Your task to perform on an android device: change the upload size in google photos Image 0: 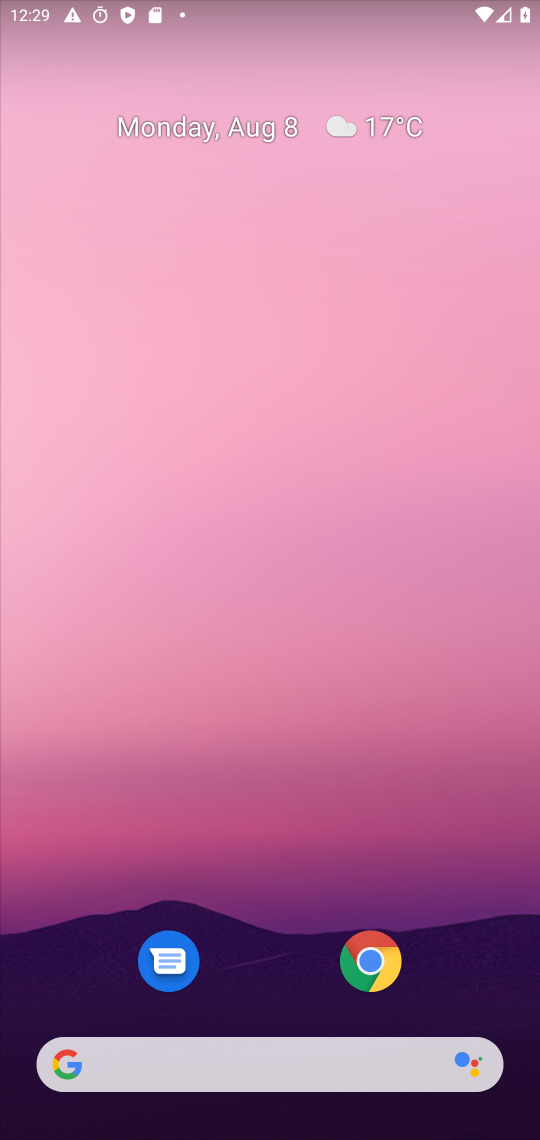
Step 0: drag from (228, 1062) to (160, 13)
Your task to perform on an android device: change the upload size in google photos Image 1: 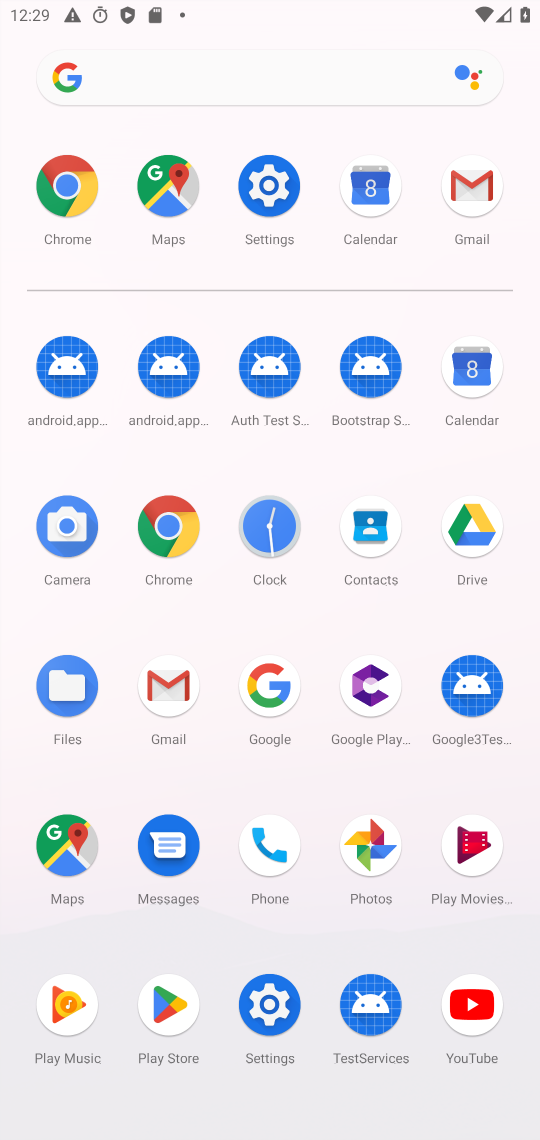
Step 1: click (359, 849)
Your task to perform on an android device: change the upload size in google photos Image 2: 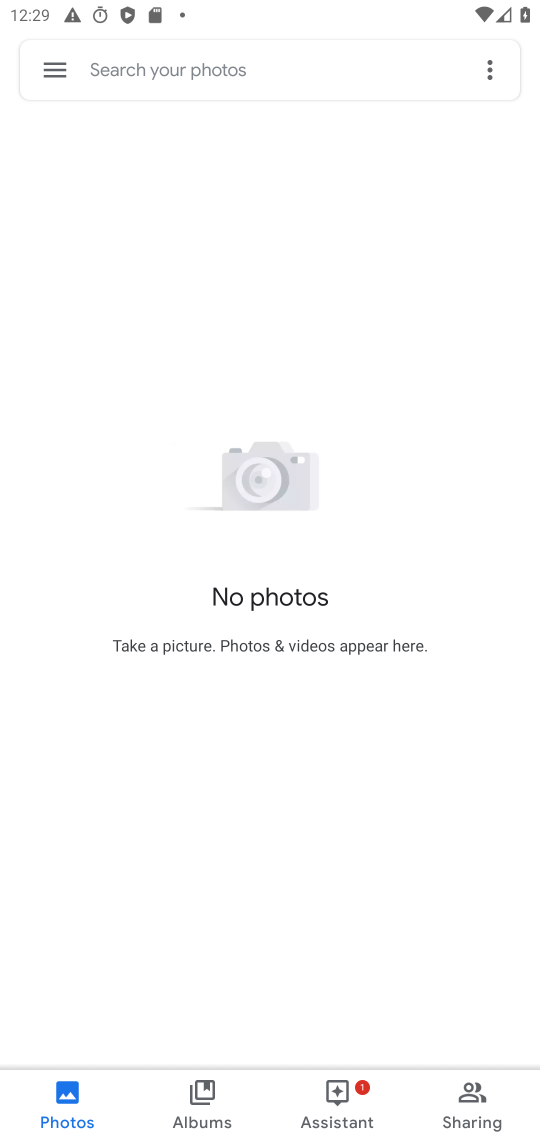
Step 2: click (55, 68)
Your task to perform on an android device: change the upload size in google photos Image 3: 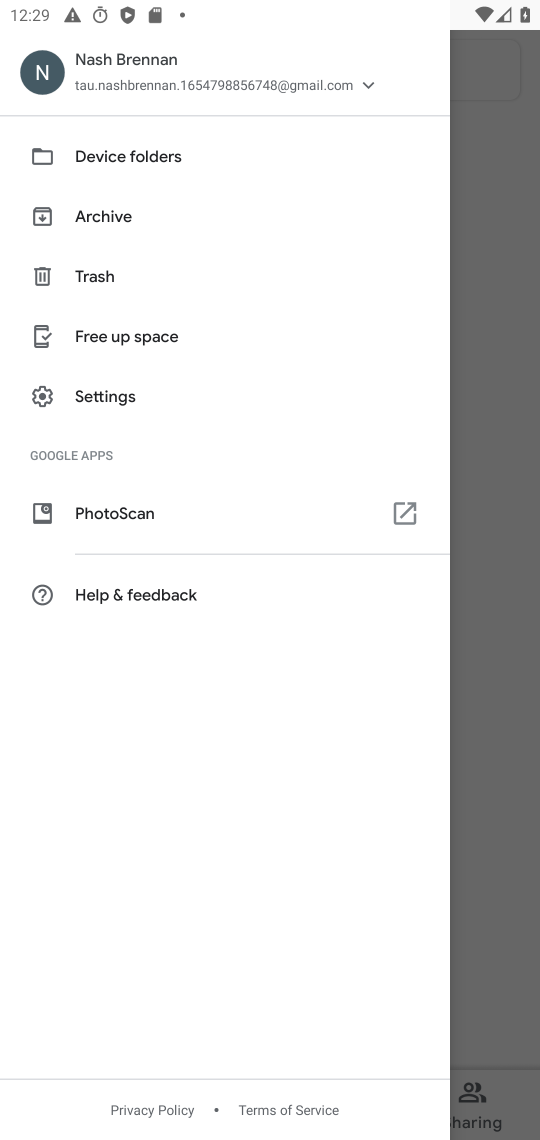
Step 3: click (124, 397)
Your task to perform on an android device: change the upload size in google photos Image 4: 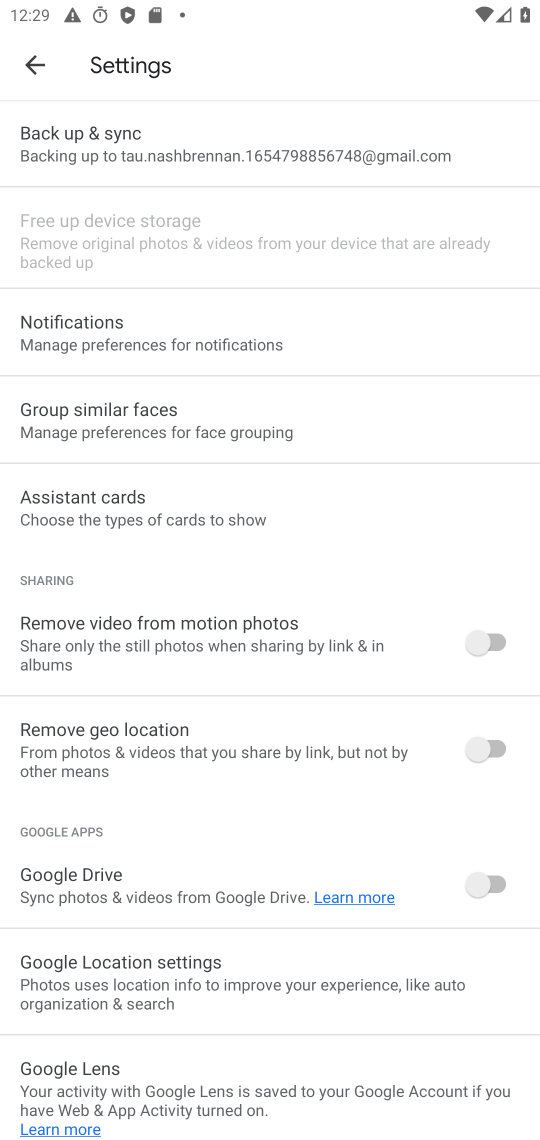
Step 4: click (159, 147)
Your task to perform on an android device: change the upload size in google photos Image 5: 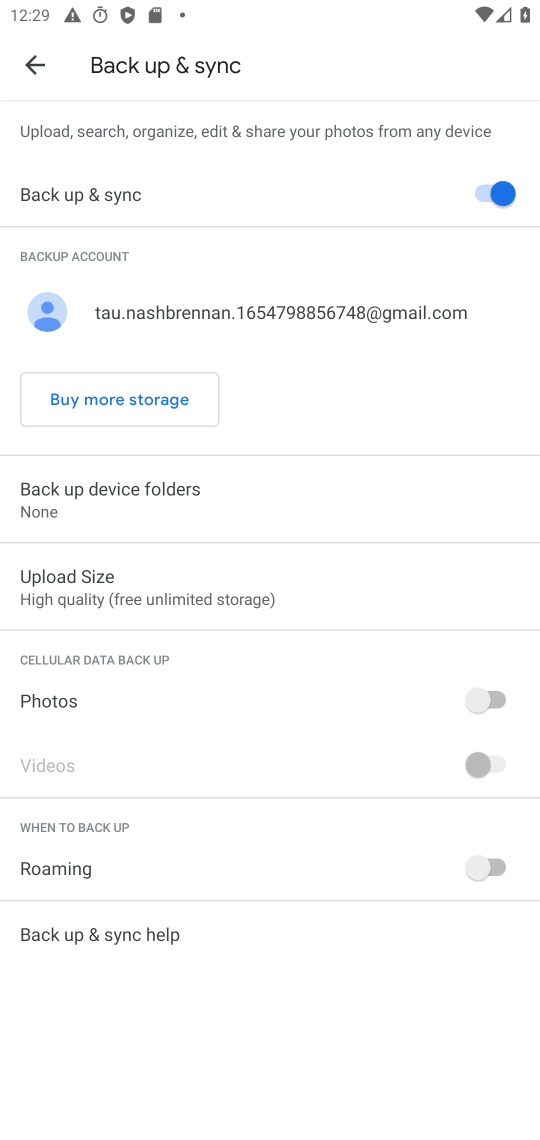
Step 5: click (90, 598)
Your task to perform on an android device: change the upload size in google photos Image 6: 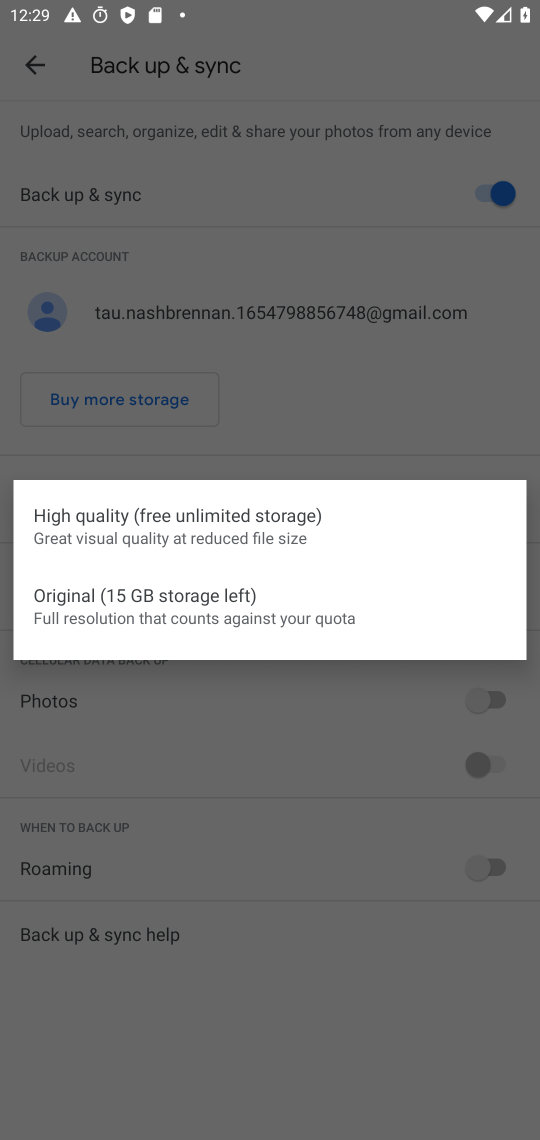
Step 6: click (121, 599)
Your task to perform on an android device: change the upload size in google photos Image 7: 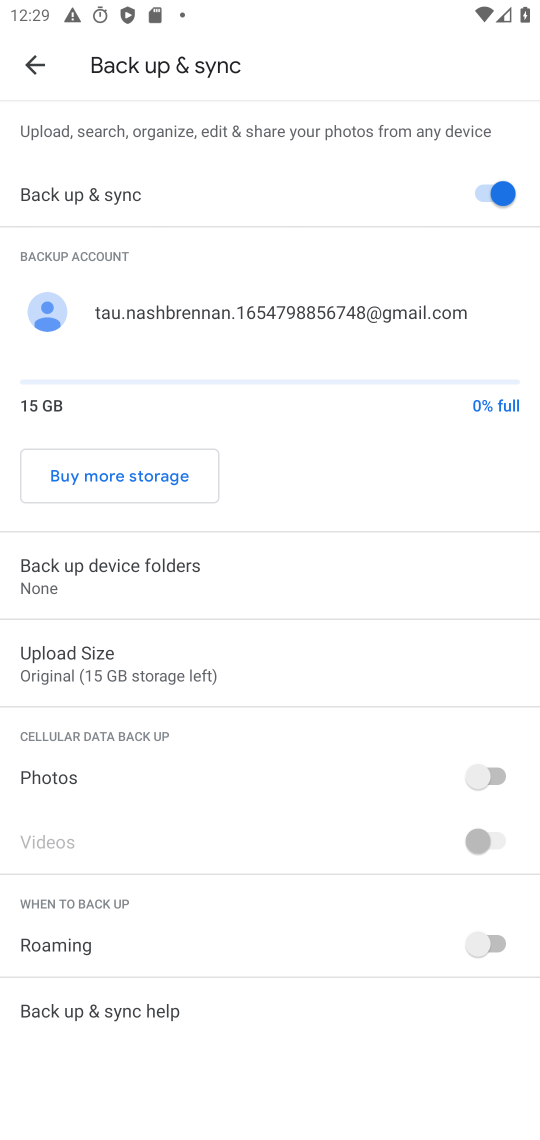
Step 7: task complete